Your task to perform on an android device: turn off location Image 0: 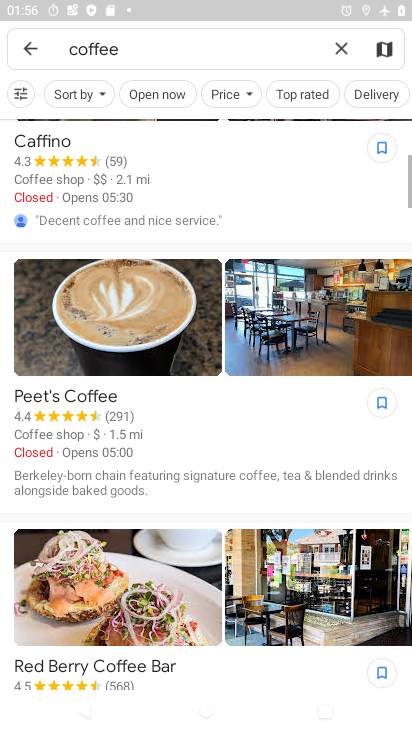
Step 0: click (211, 158)
Your task to perform on an android device: turn off location Image 1: 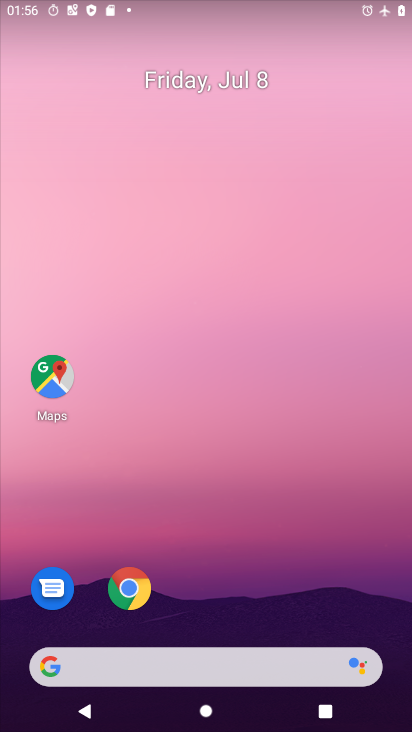
Step 1: drag from (183, 621) to (220, 135)
Your task to perform on an android device: turn off location Image 2: 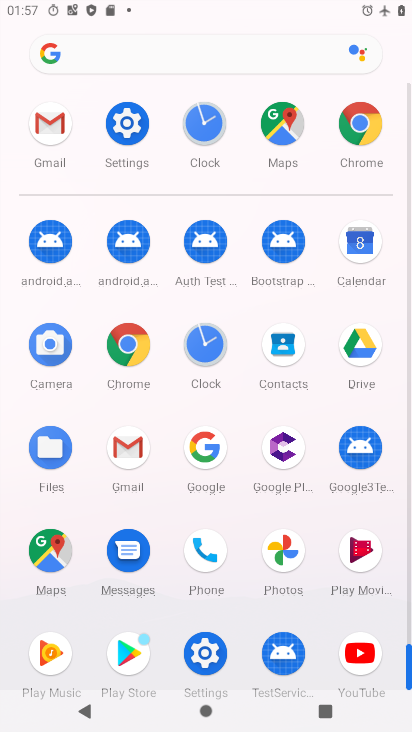
Step 2: click (148, 447)
Your task to perform on an android device: turn off location Image 3: 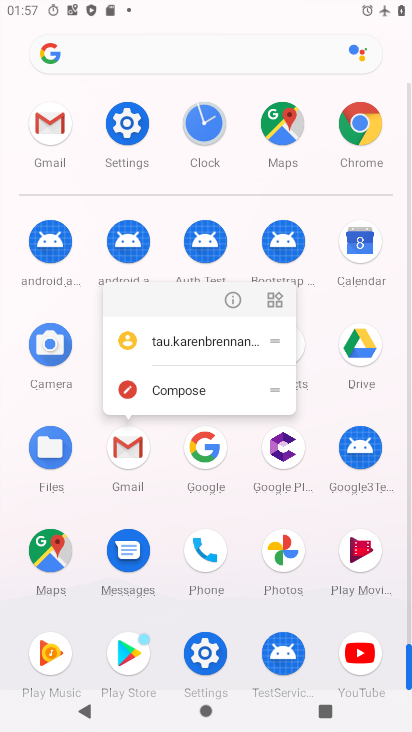
Step 3: click (138, 116)
Your task to perform on an android device: turn off location Image 4: 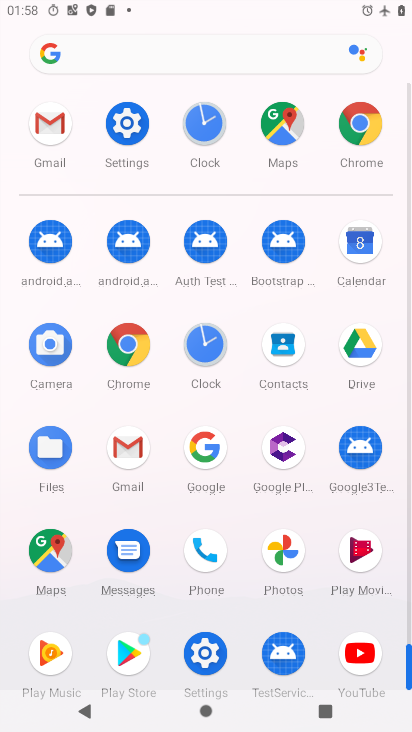
Step 4: click (126, 112)
Your task to perform on an android device: turn off location Image 5: 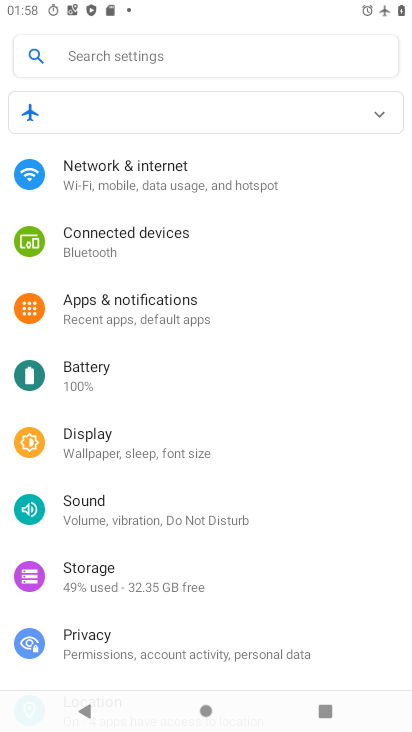
Step 5: drag from (152, 561) to (206, 156)
Your task to perform on an android device: turn off location Image 6: 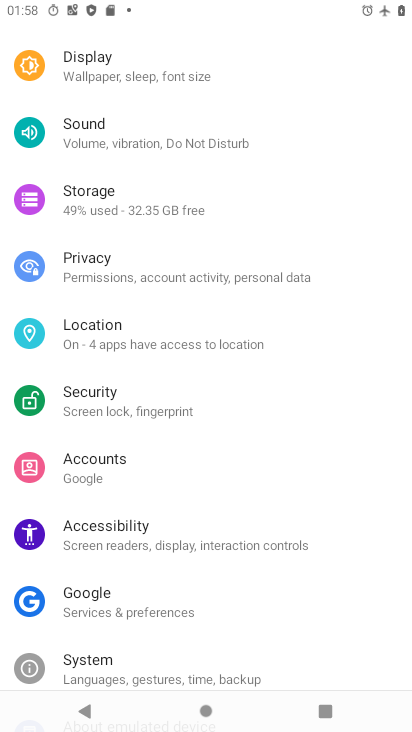
Step 6: click (178, 332)
Your task to perform on an android device: turn off location Image 7: 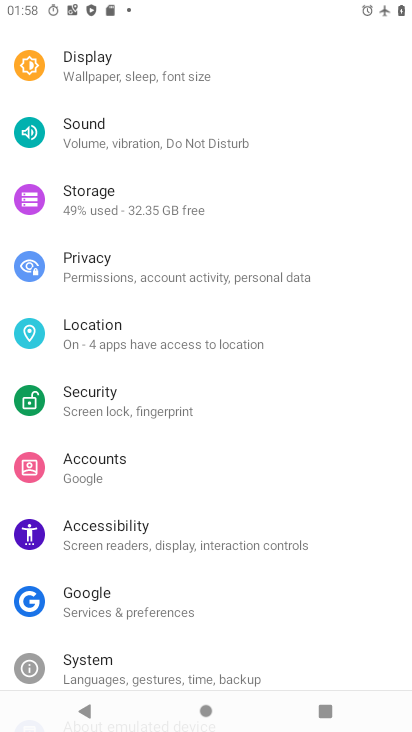
Step 7: click (178, 332)
Your task to perform on an android device: turn off location Image 8: 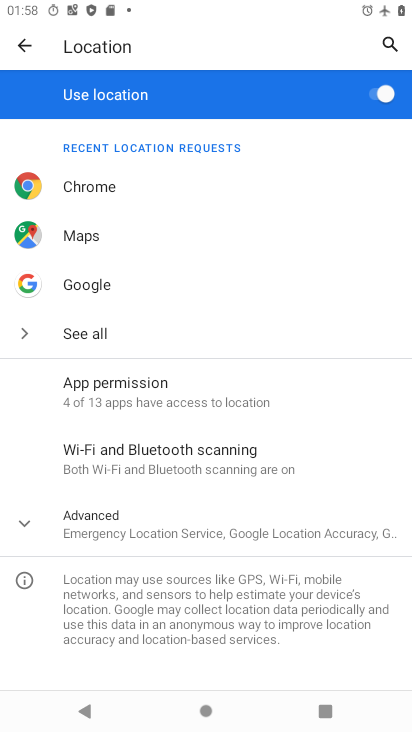
Step 8: task complete